Your task to perform on an android device: show emergency info Image 0: 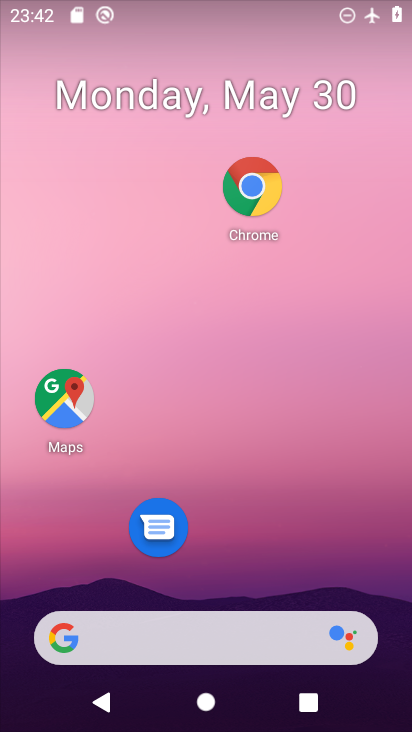
Step 0: drag from (301, 639) to (279, 316)
Your task to perform on an android device: show emergency info Image 1: 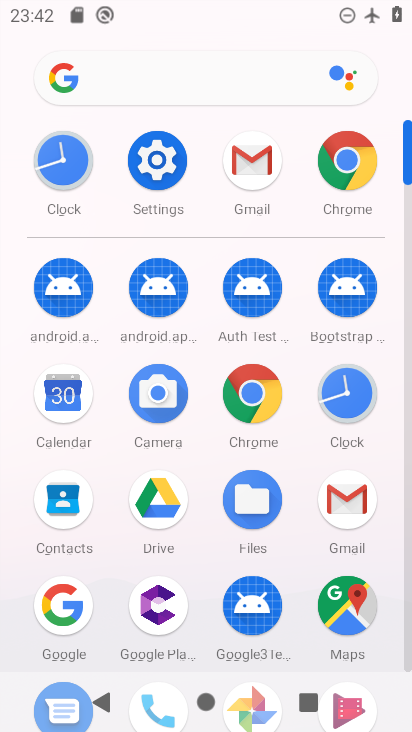
Step 1: click (154, 144)
Your task to perform on an android device: show emergency info Image 2: 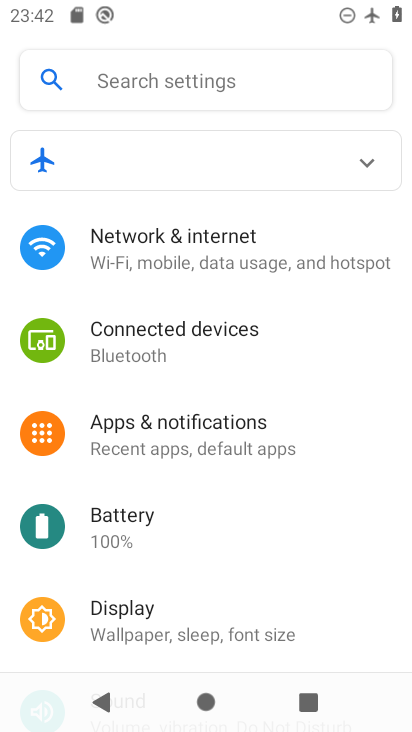
Step 2: drag from (287, 490) to (300, 245)
Your task to perform on an android device: show emergency info Image 3: 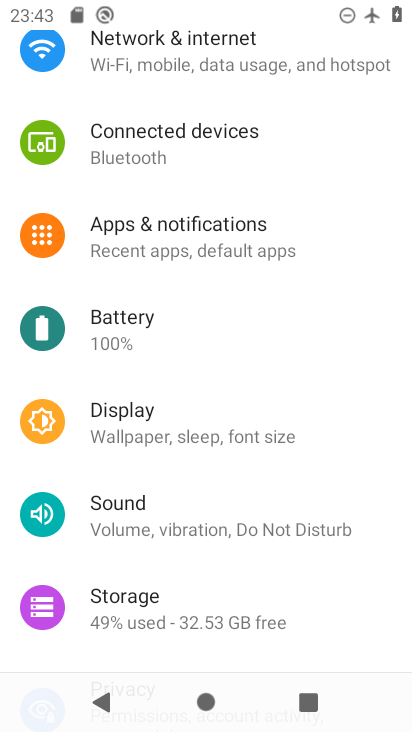
Step 3: drag from (245, 563) to (289, 135)
Your task to perform on an android device: show emergency info Image 4: 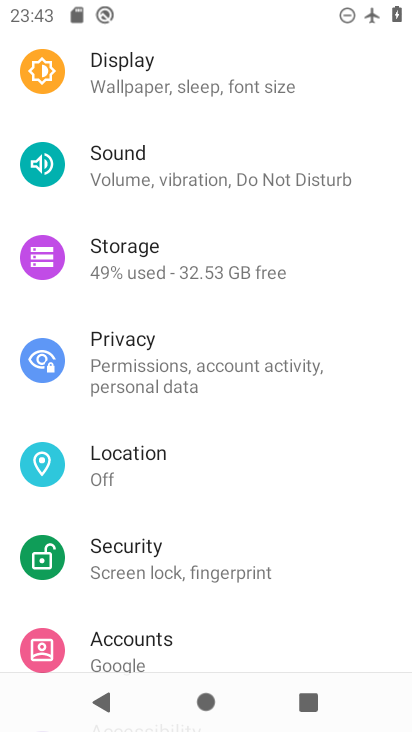
Step 4: drag from (230, 545) to (278, 172)
Your task to perform on an android device: show emergency info Image 5: 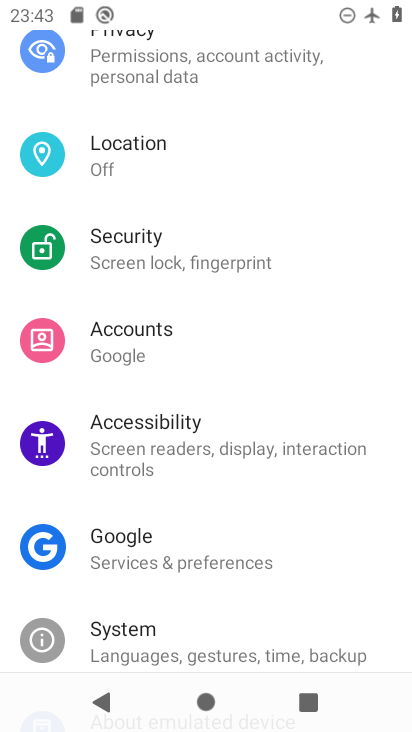
Step 5: drag from (248, 518) to (246, 304)
Your task to perform on an android device: show emergency info Image 6: 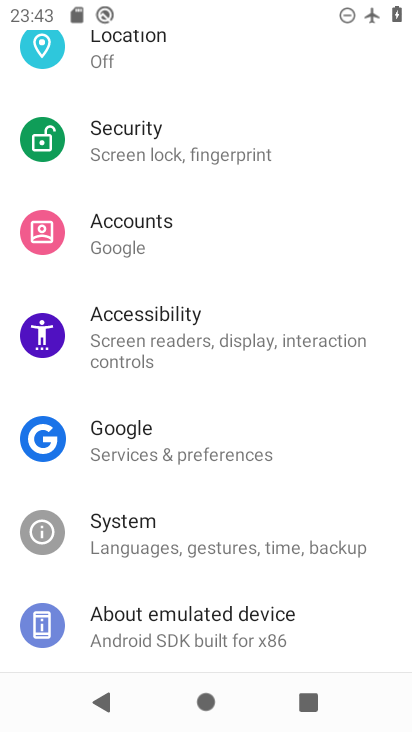
Step 6: click (187, 622)
Your task to perform on an android device: show emergency info Image 7: 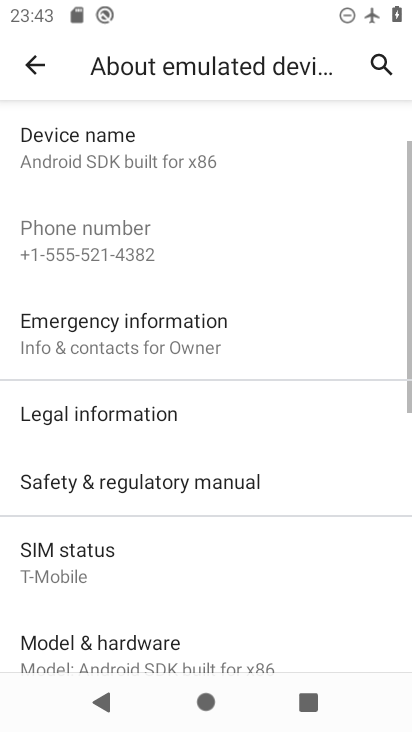
Step 7: drag from (194, 606) to (212, 221)
Your task to perform on an android device: show emergency info Image 8: 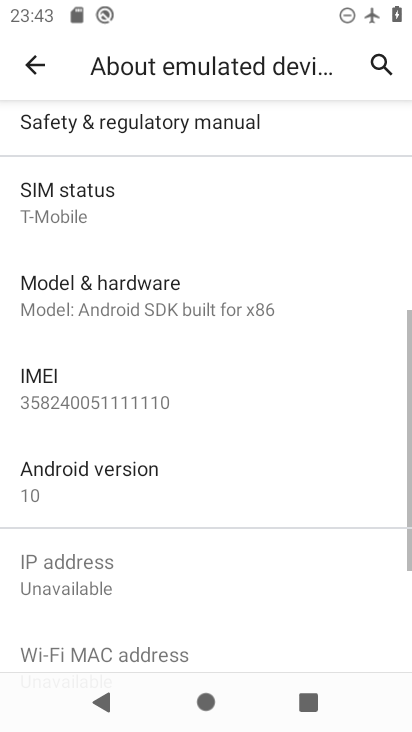
Step 8: drag from (183, 255) to (210, 611)
Your task to perform on an android device: show emergency info Image 9: 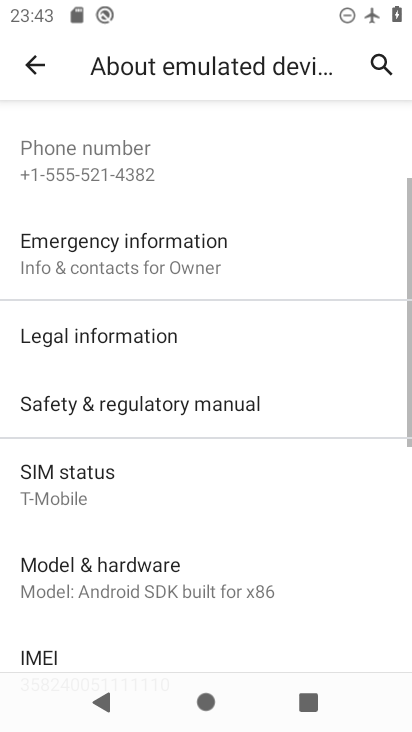
Step 9: click (189, 234)
Your task to perform on an android device: show emergency info Image 10: 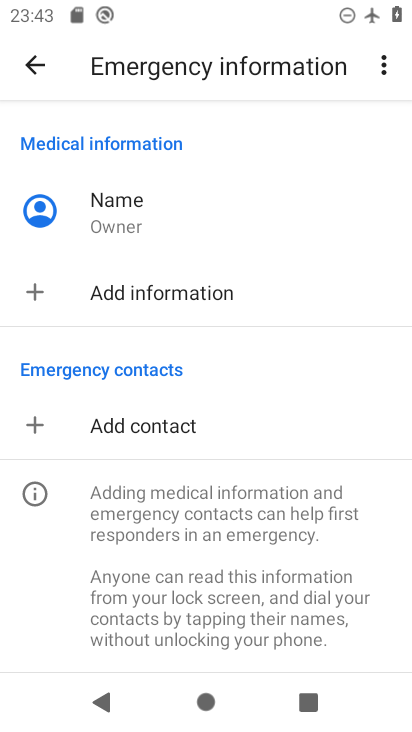
Step 10: task complete